Your task to perform on an android device: change timer sound Image 0: 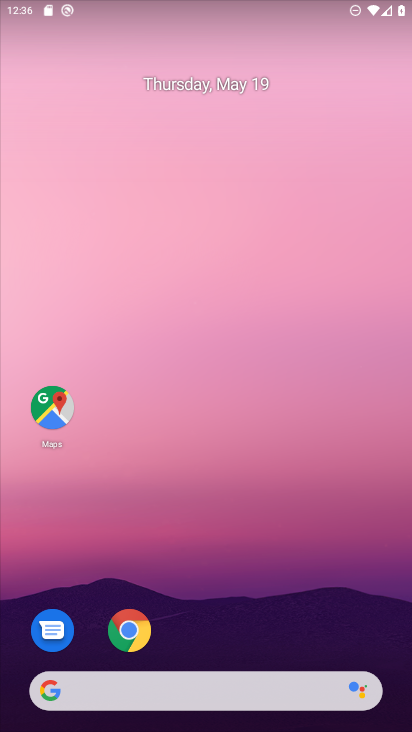
Step 0: drag from (204, 611) to (204, 68)
Your task to perform on an android device: change timer sound Image 1: 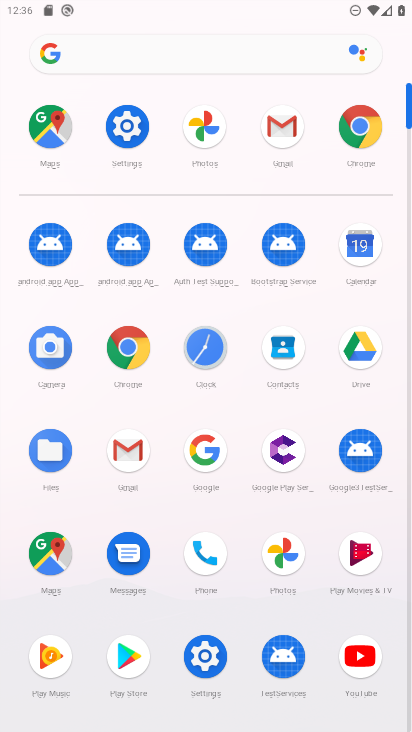
Step 1: click (203, 367)
Your task to perform on an android device: change timer sound Image 2: 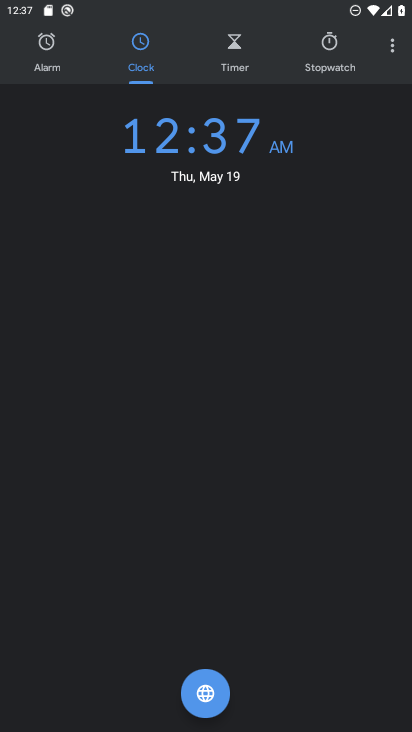
Step 2: click (409, 76)
Your task to perform on an android device: change timer sound Image 3: 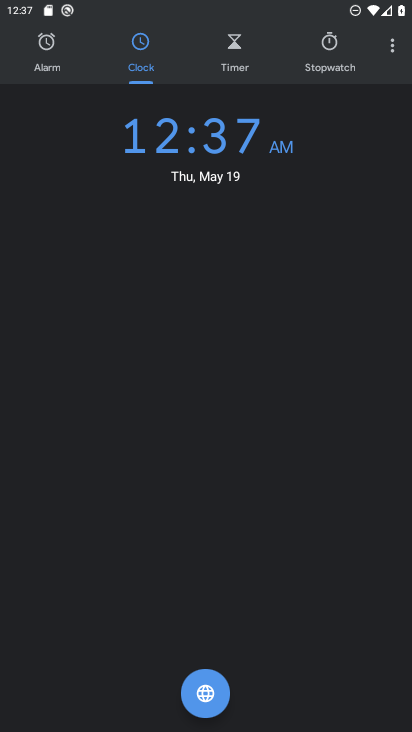
Step 3: click (394, 46)
Your task to perform on an android device: change timer sound Image 4: 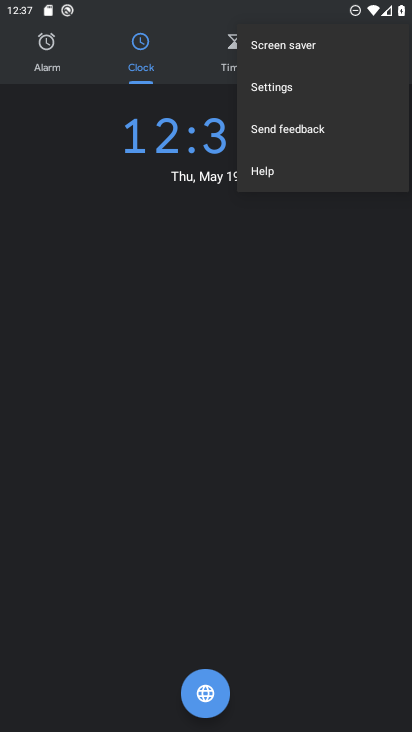
Step 4: click (287, 92)
Your task to perform on an android device: change timer sound Image 5: 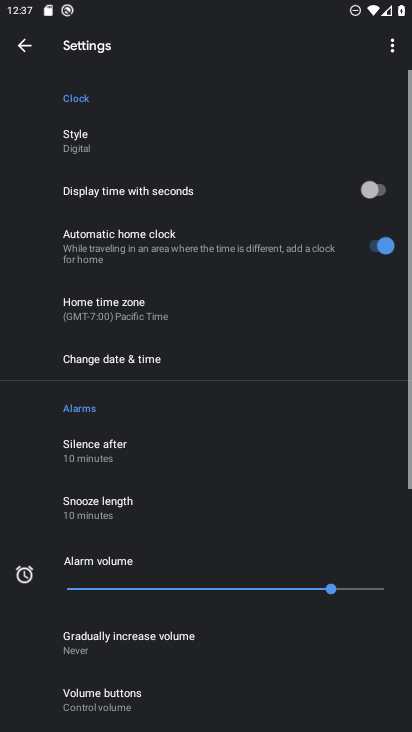
Step 5: drag from (122, 515) to (408, 64)
Your task to perform on an android device: change timer sound Image 6: 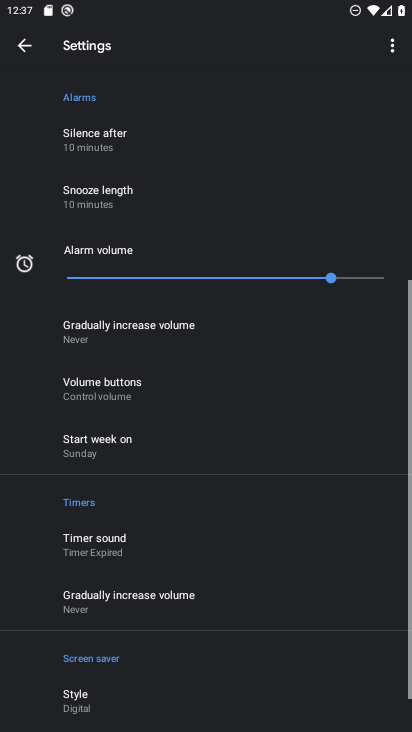
Step 6: drag from (135, 491) to (223, 381)
Your task to perform on an android device: change timer sound Image 7: 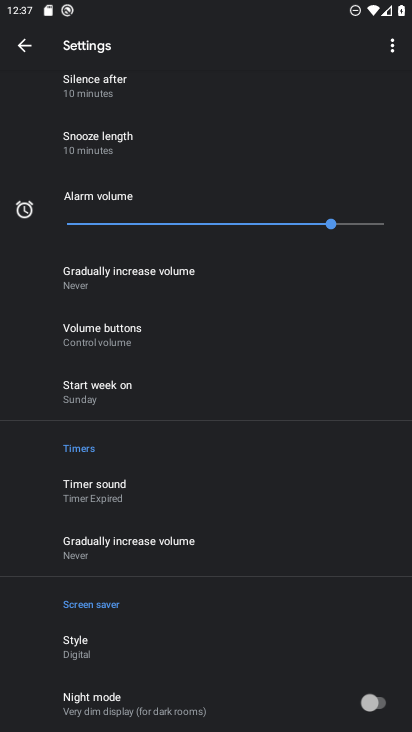
Step 7: click (142, 505)
Your task to perform on an android device: change timer sound Image 8: 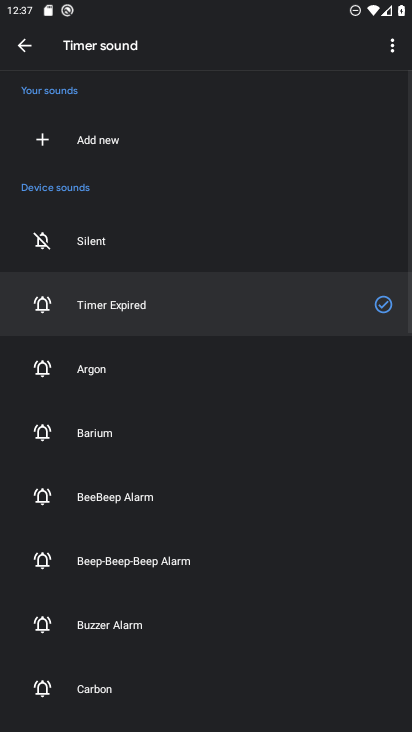
Step 8: click (212, 443)
Your task to perform on an android device: change timer sound Image 9: 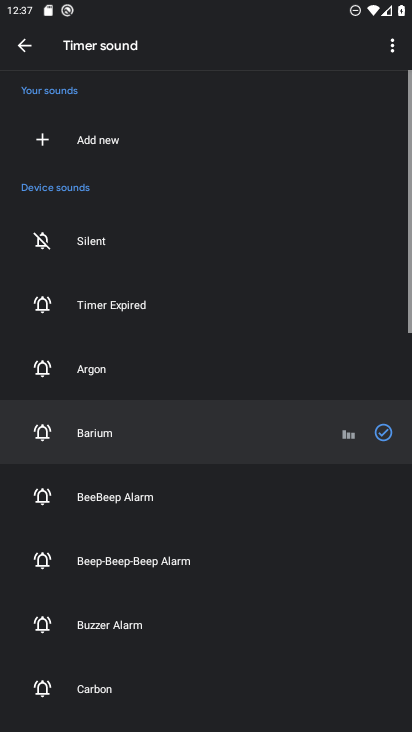
Step 9: task complete